Your task to perform on an android device: Check the news Image 0: 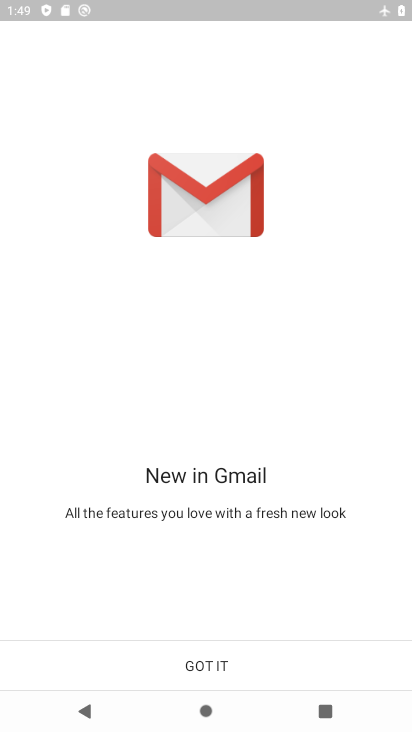
Step 0: press home button
Your task to perform on an android device: Check the news Image 1: 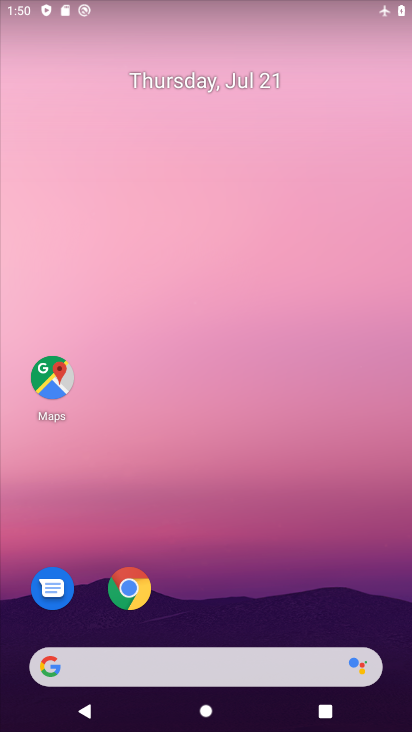
Step 1: click (147, 586)
Your task to perform on an android device: Check the news Image 2: 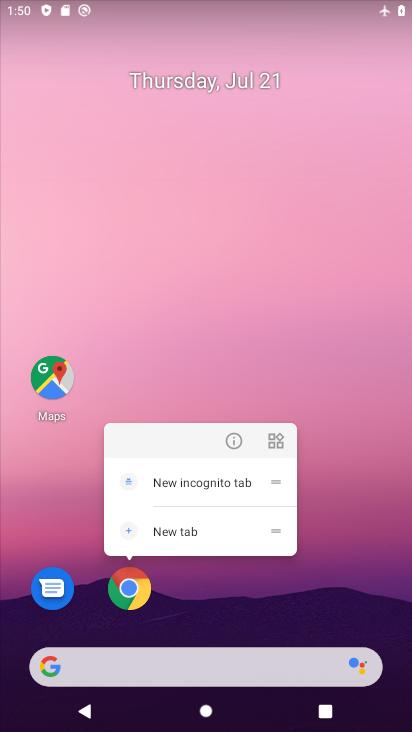
Step 2: click (127, 589)
Your task to perform on an android device: Check the news Image 3: 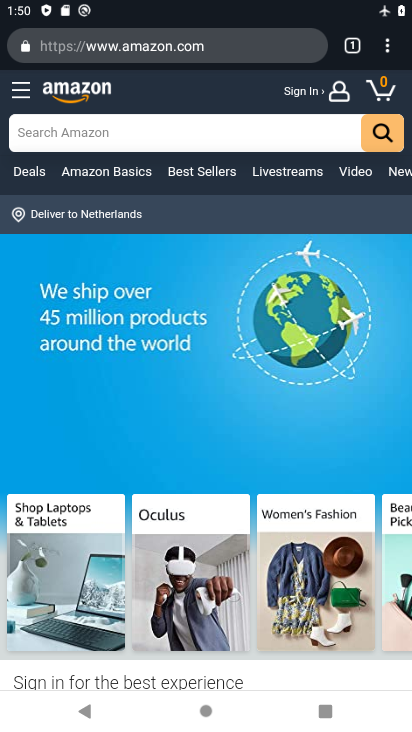
Step 3: click (212, 52)
Your task to perform on an android device: Check the news Image 4: 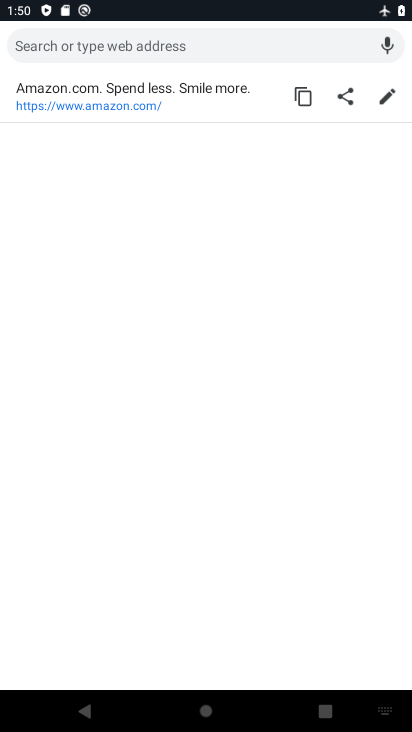
Step 4: type "news"
Your task to perform on an android device: Check the news Image 5: 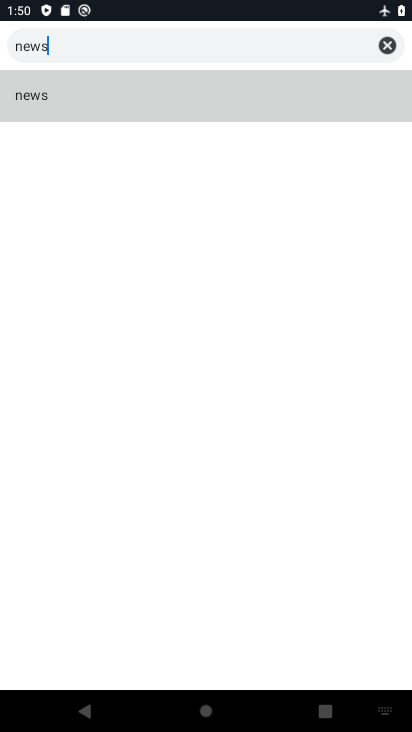
Step 5: type ""
Your task to perform on an android device: Check the news Image 6: 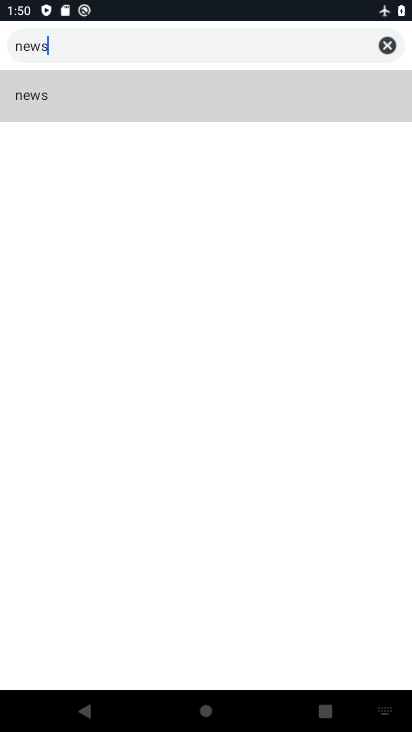
Step 6: click (115, 84)
Your task to perform on an android device: Check the news Image 7: 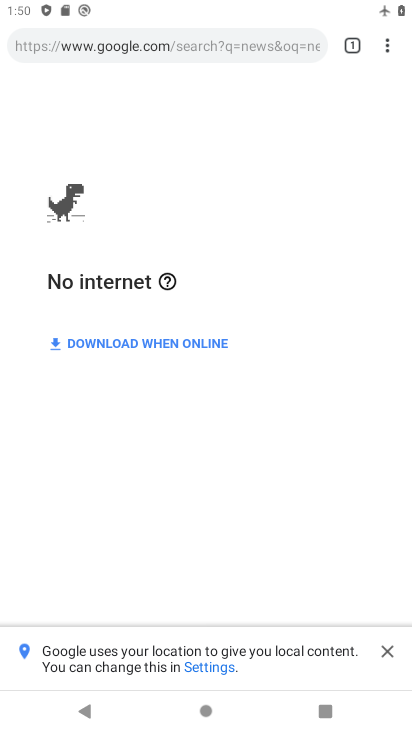
Step 7: drag from (370, 7) to (368, 302)
Your task to perform on an android device: Check the news Image 8: 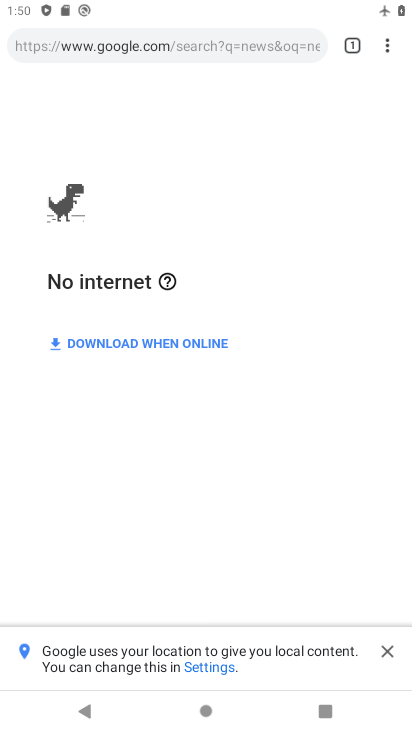
Step 8: click (373, 113)
Your task to perform on an android device: Check the news Image 9: 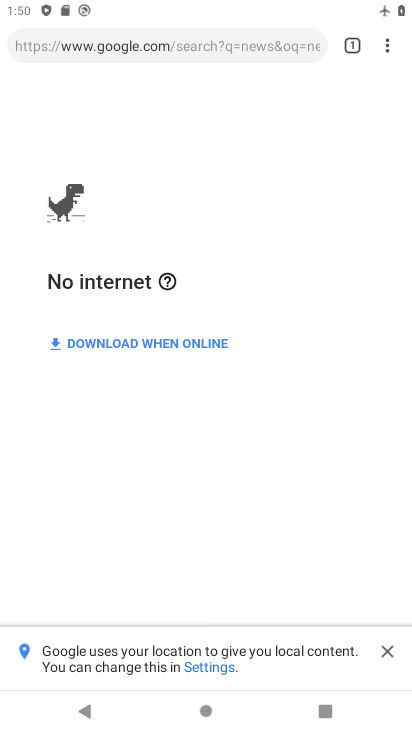
Step 9: drag from (387, 14) to (191, 724)
Your task to perform on an android device: Check the news Image 10: 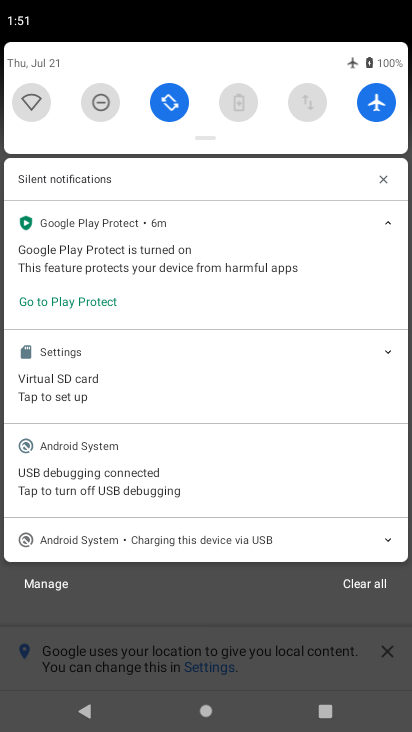
Step 10: click (374, 93)
Your task to perform on an android device: Check the news Image 11: 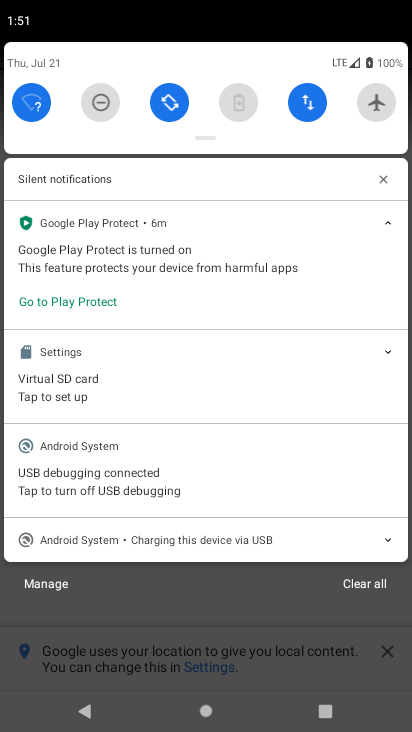
Step 11: task complete